Your task to perform on an android device: change timer sound Image 0: 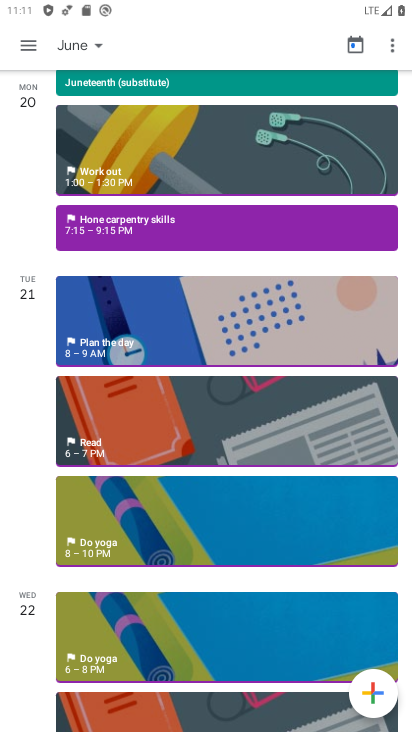
Step 0: press home button
Your task to perform on an android device: change timer sound Image 1: 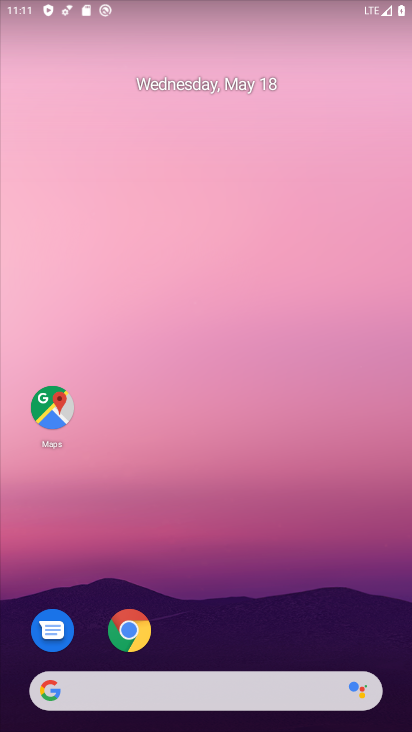
Step 1: drag from (239, 606) to (231, 130)
Your task to perform on an android device: change timer sound Image 2: 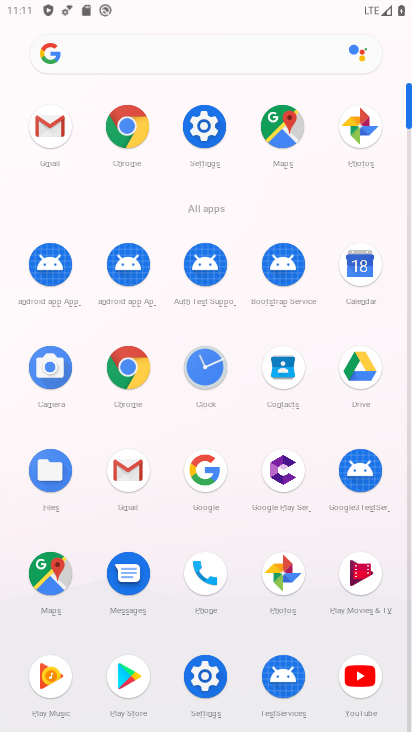
Step 2: click (204, 378)
Your task to perform on an android device: change timer sound Image 3: 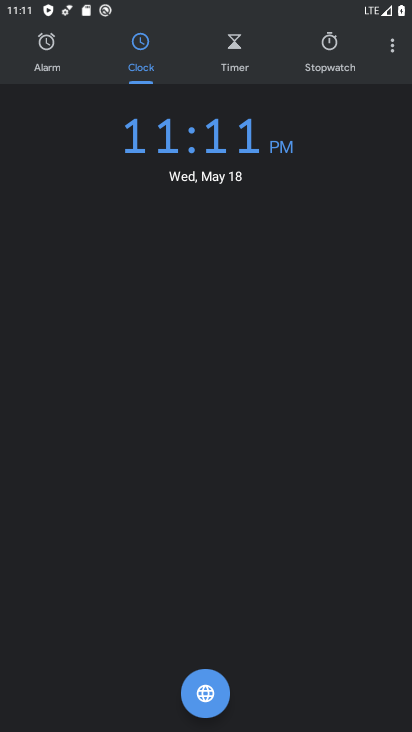
Step 3: click (395, 51)
Your task to perform on an android device: change timer sound Image 4: 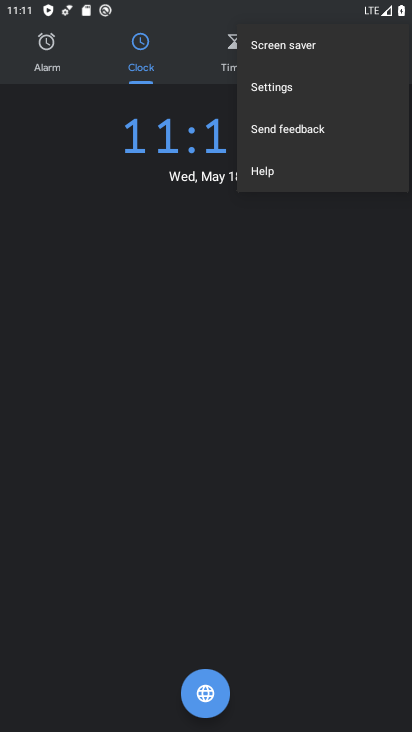
Step 4: click (283, 87)
Your task to perform on an android device: change timer sound Image 5: 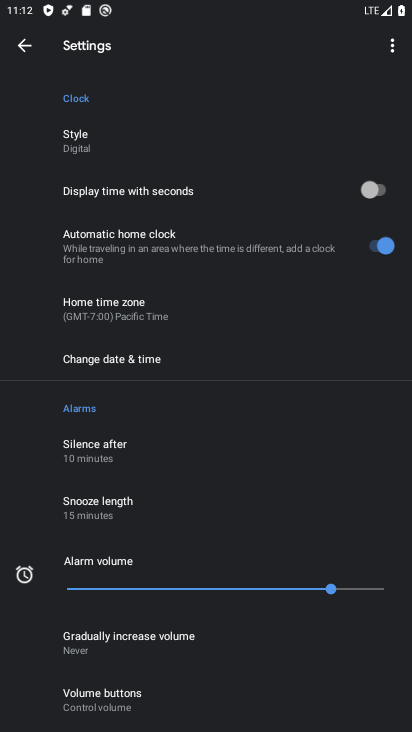
Step 5: drag from (152, 628) to (166, 317)
Your task to perform on an android device: change timer sound Image 6: 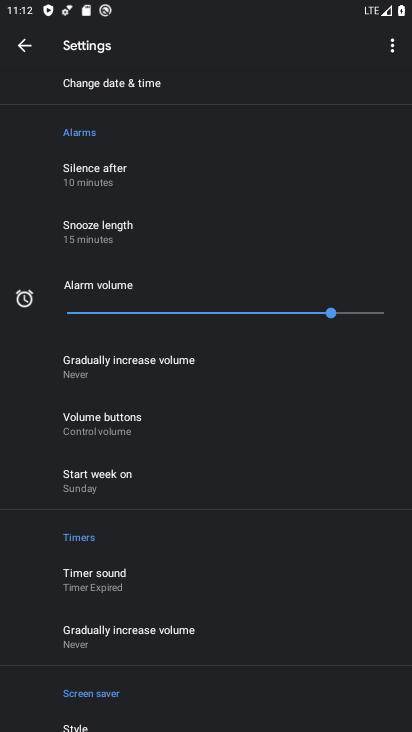
Step 6: click (135, 582)
Your task to perform on an android device: change timer sound Image 7: 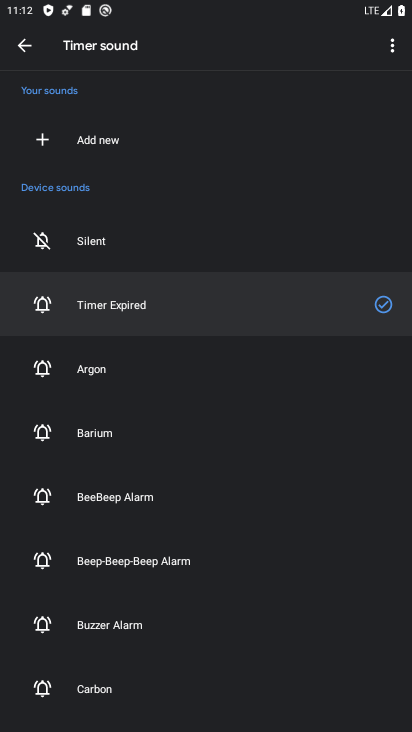
Step 7: click (128, 504)
Your task to perform on an android device: change timer sound Image 8: 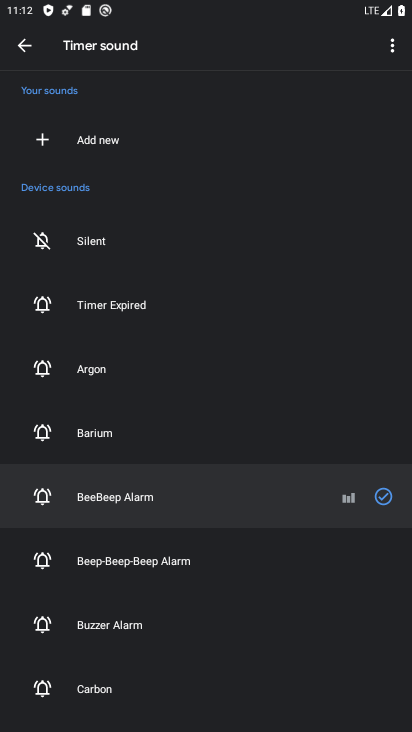
Step 8: task complete